Your task to perform on an android device: Open ESPN.com Image 0: 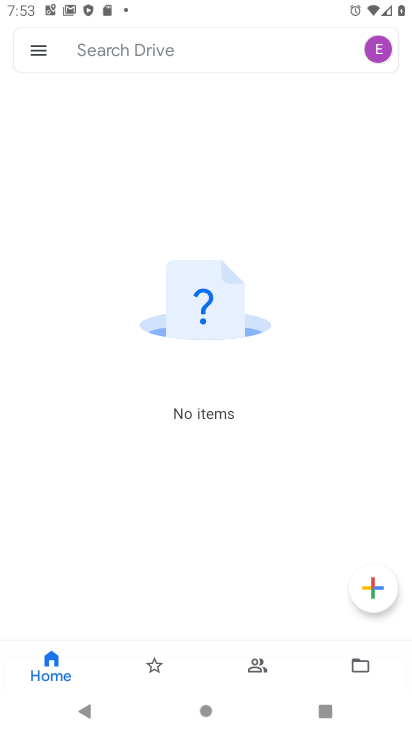
Step 0: press home button
Your task to perform on an android device: Open ESPN.com Image 1: 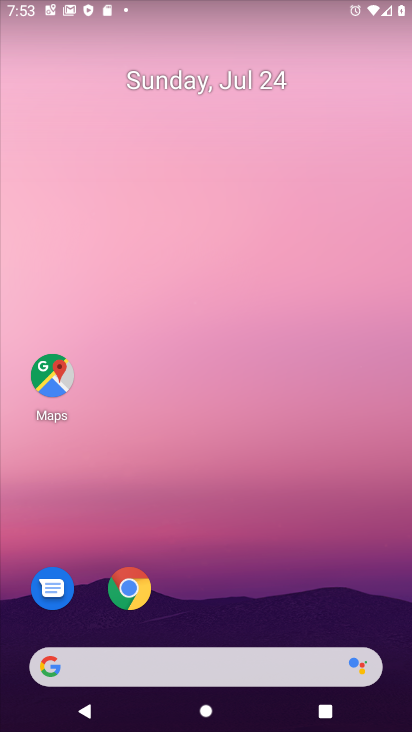
Step 1: drag from (287, 525) to (384, 0)
Your task to perform on an android device: Open ESPN.com Image 2: 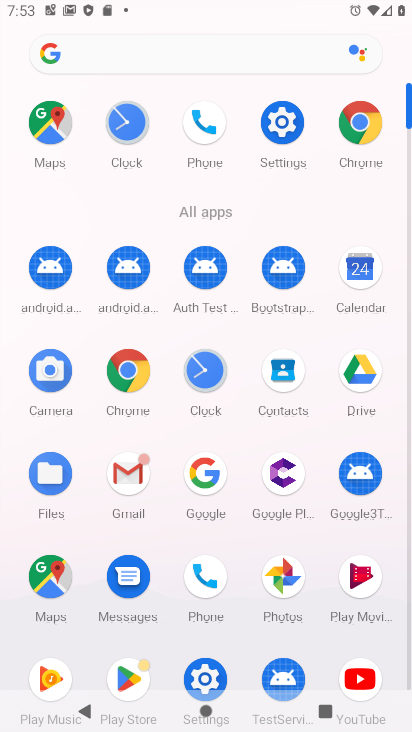
Step 2: click (359, 129)
Your task to perform on an android device: Open ESPN.com Image 3: 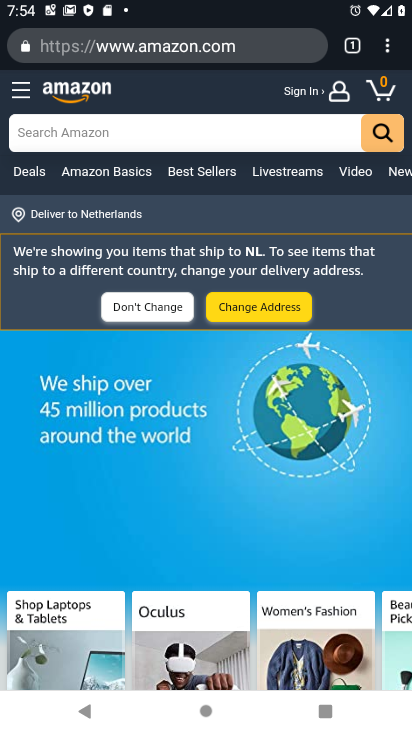
Step 3: press back button
Your task to perform on an android device: Open ESPN.com Image 4: 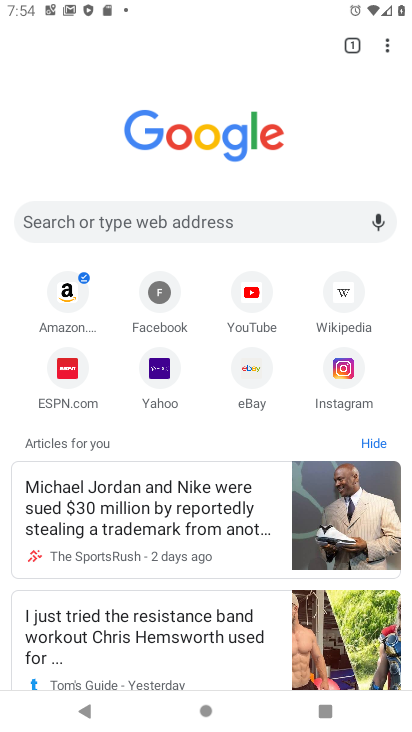
Step 4: click (68, 388)
Your task to perform on an android device: Open ESPN.com Image 5: 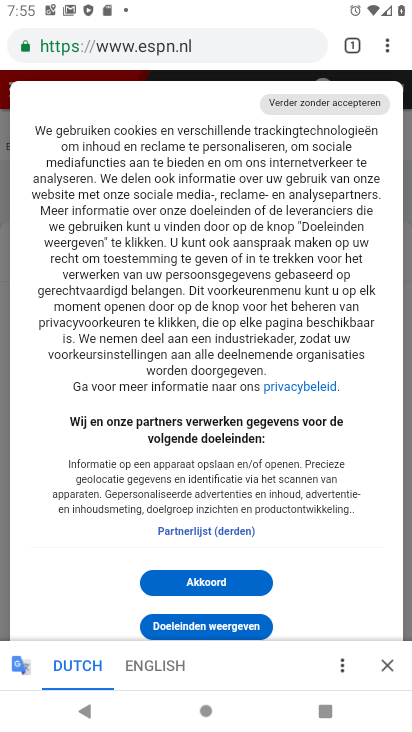
Step 5: task complete